Your task to perform on an android device: What's on my calendar tomorrow? Image 0: 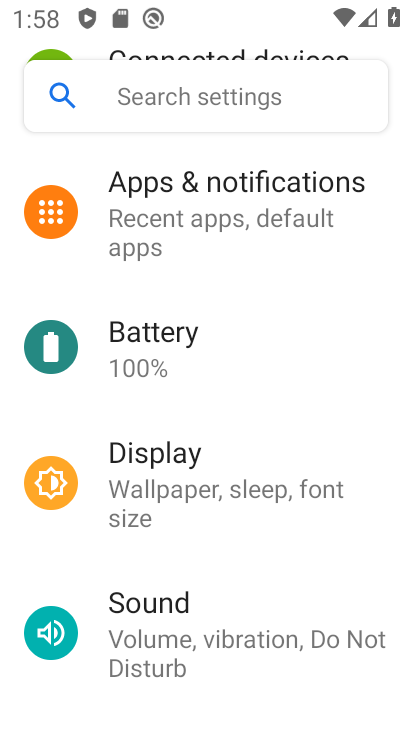
Step 0: press home button
Your task to perform on an android device: What's on my calendar tomorrow? Image 1: 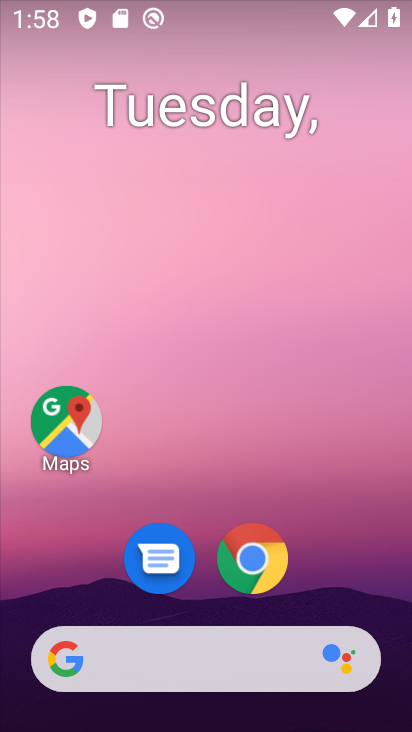
Step 1: drag from (223, 602) to (293, 83)
Your task to perform on an android device: What's on my calendar tomorrow? Image 2: 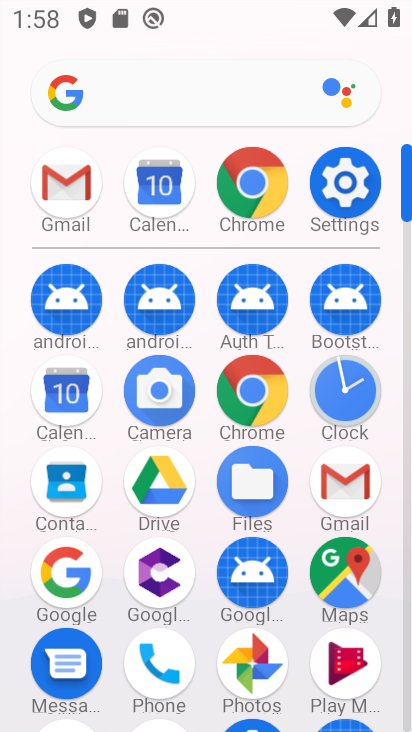
Step 2: click (51, 387)
Your task to perform on an android device: What's on my calendar tomorrow? Image 3: 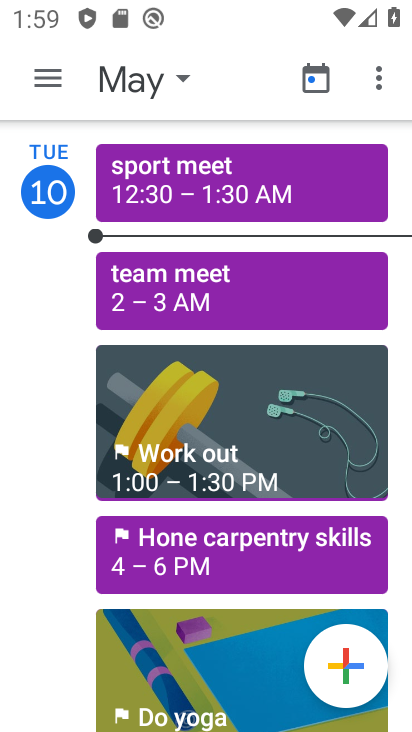
Step 3: drag from (203, 568) to (352, 41)
Your task to perform on an android device: What's on my calendar tomorrow? Image 4: 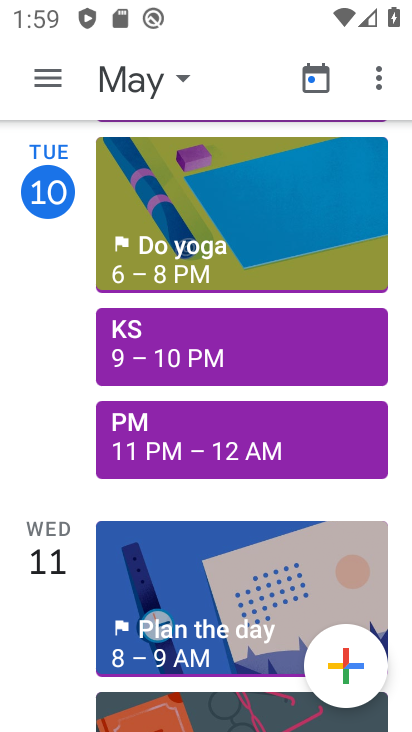
Step 4: drag from (235, 654) to (292, 250)
Your task to perform on an android device: What's on my calendar tomorrow? Image 5: 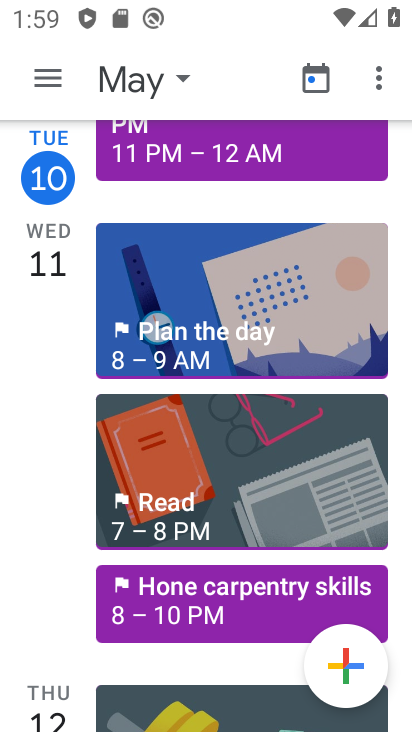
Step 5: click (217, 307)
Your task to perform on an android device: What's on my calendar tomorrow? Image 6: 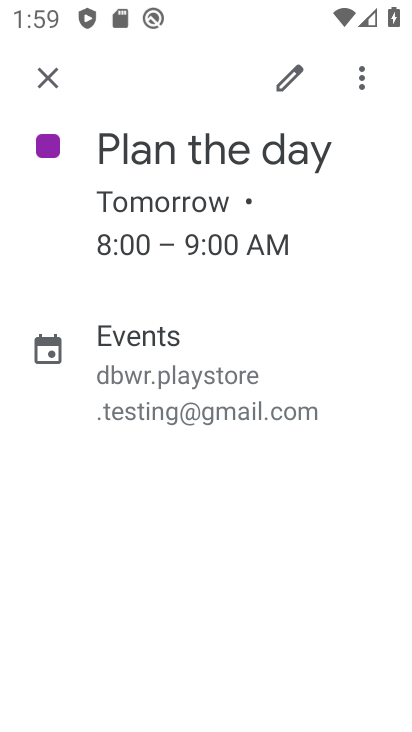
Step 6: task complete